Your task to perform on an android device: Open display settings Image 0: 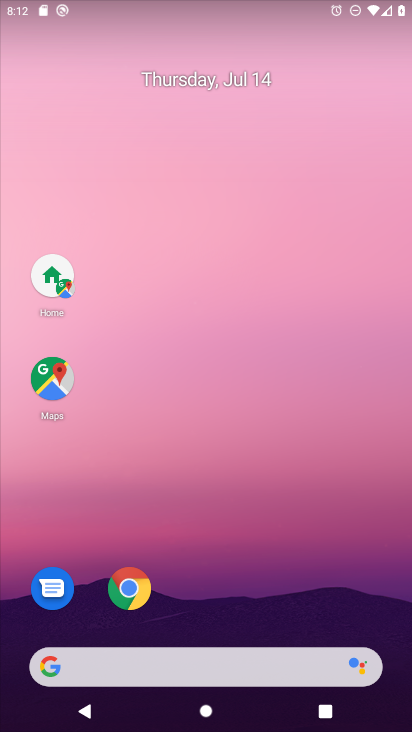
Step 0: drag from (97, 560) to (200, 40)
Your task to perform on an android device: Open display settings Image 1: 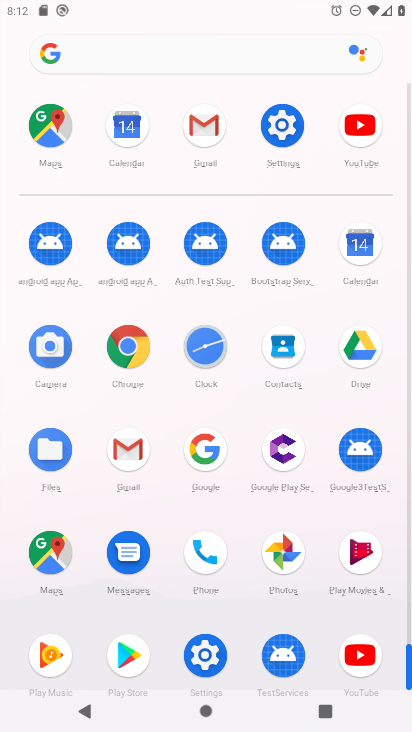
Step 1: click (190, 657)
Your task to perform on an android device: Open display settings Image 2: 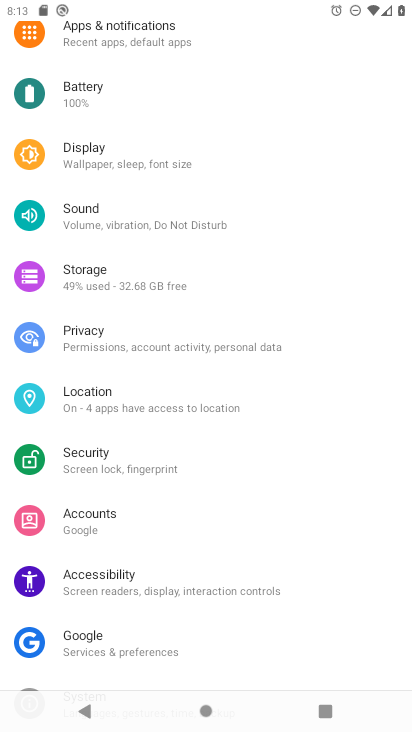
Step 2: click (133, 145)
Your task to perform on an android device: Open display settings Image 3: 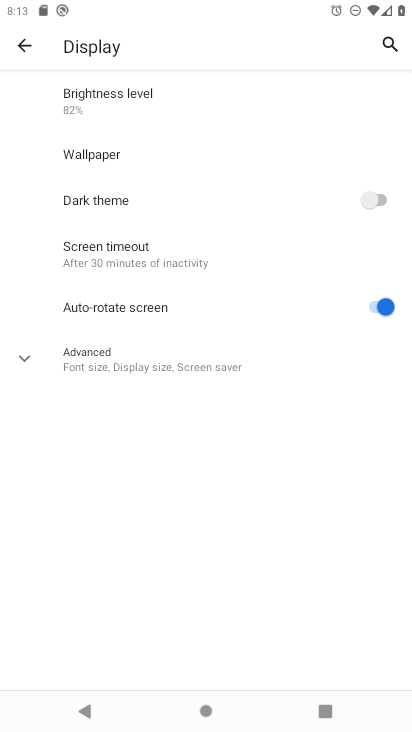
Step 3: task complete